Your task to perform on an android device: turn on javascript in the chrome app Image 0: 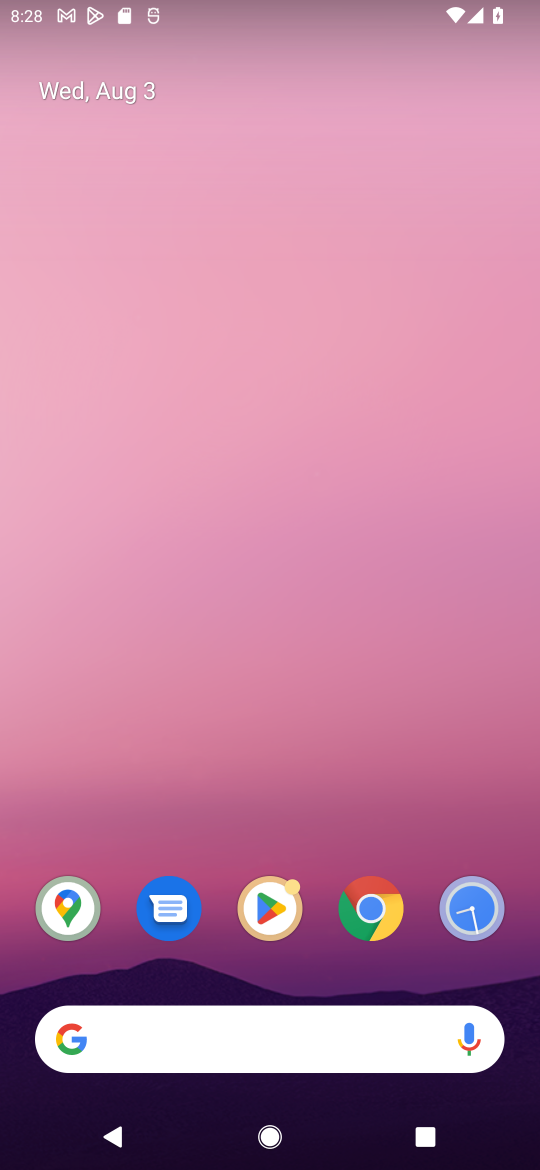
Step 0: drag from (281, 961) to (196, 267)
Your task to perform on an android device: turn on javascript in the chrome app Image 1: 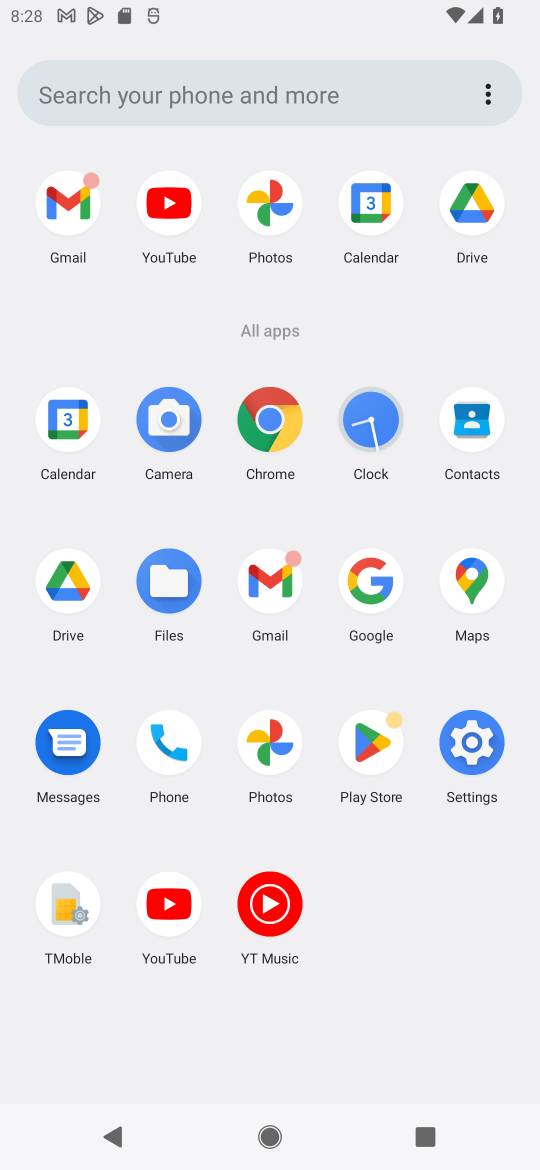
Step 1: click (254, 430)
Your task to perform on an android device: turn on javascript in the chrome app Image 2: 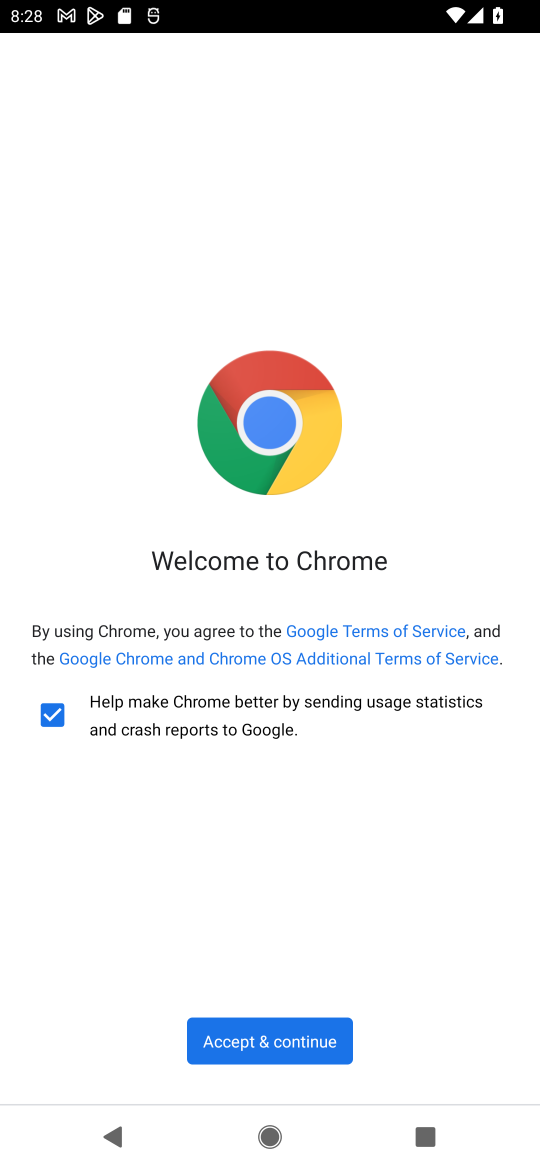
Step 2: click (312, 1034)
Your task to perform on an android device: turn on javascript in the chrome app Image 3: 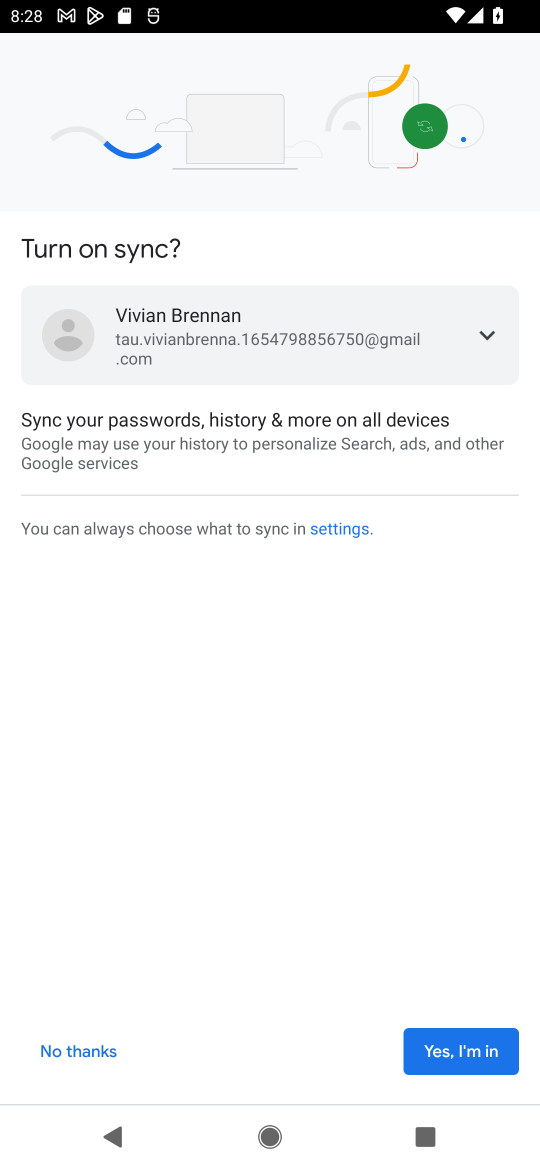
Step 3: click (444, 1060)
Your task to perform on an android device: turn on javascript in the chrome app Image 4: 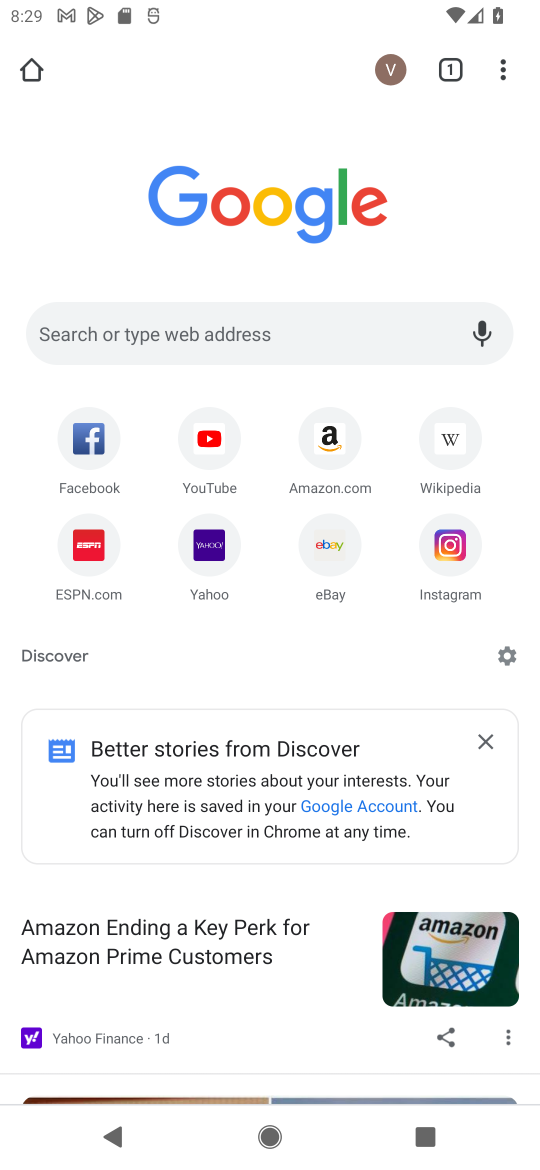
Step 4: drag from (512, 65) to (383, 613)
Your task to perform on an android device: turn on javascript in the chrome app Image 5: 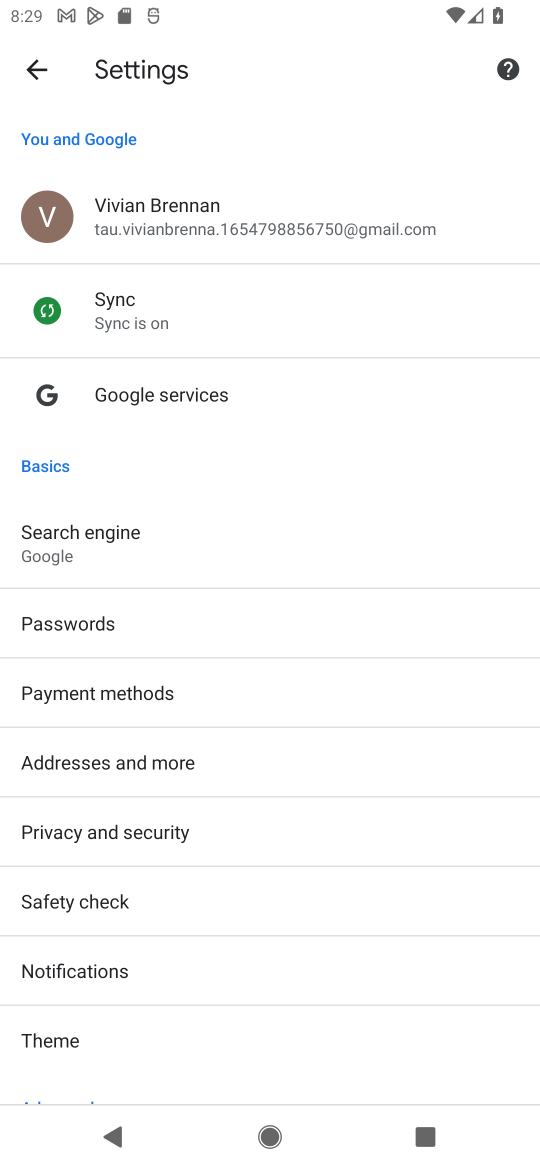
Step 5: drag from (208, 891) to (77, 339)
Your task to perform on an android device: turn on javascript in the chrome app Image 6: 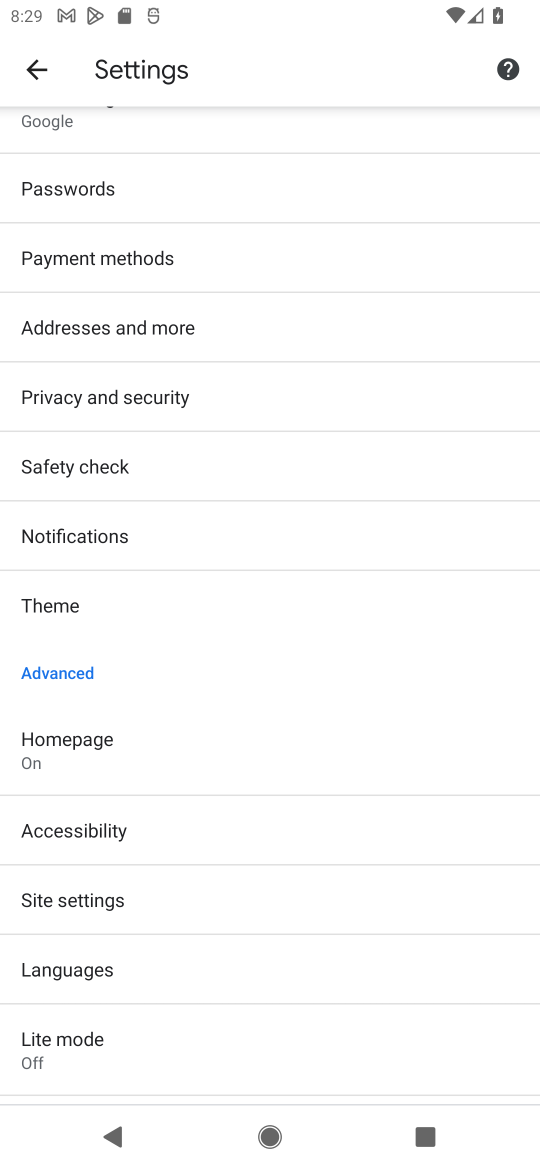
Step 6: click (115, 900)
Your task to perform on an android device: turn on javascript in the chrome app Image 7: 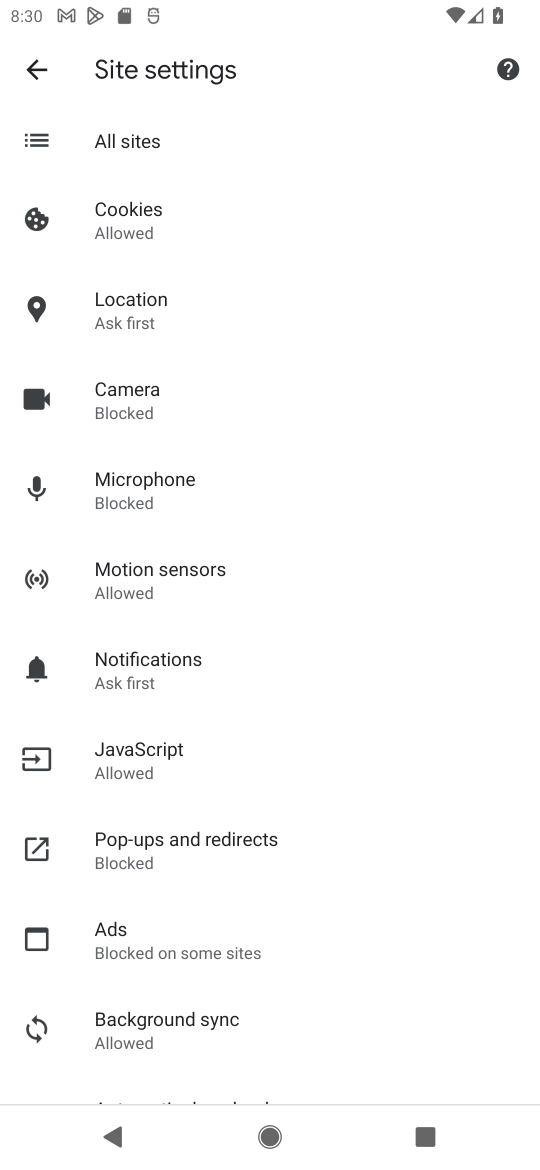
Step 7: click (156, 738)
Your task to perform on an android device: turn on javascript in the chrome app Image 8: 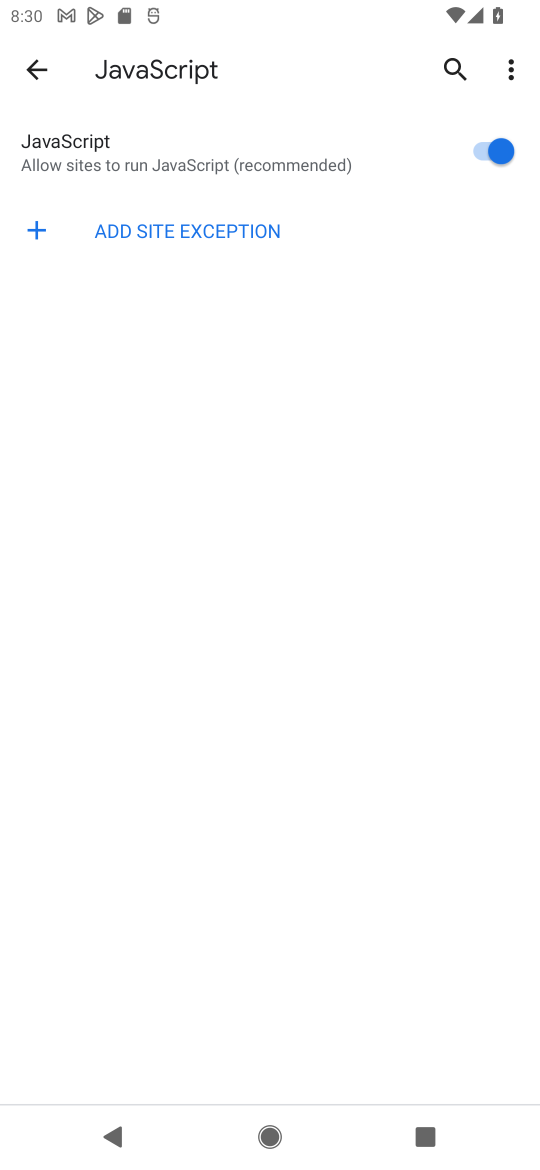
Step 8: task complete